Your task to perform on an android device: turn off location history Image 0: 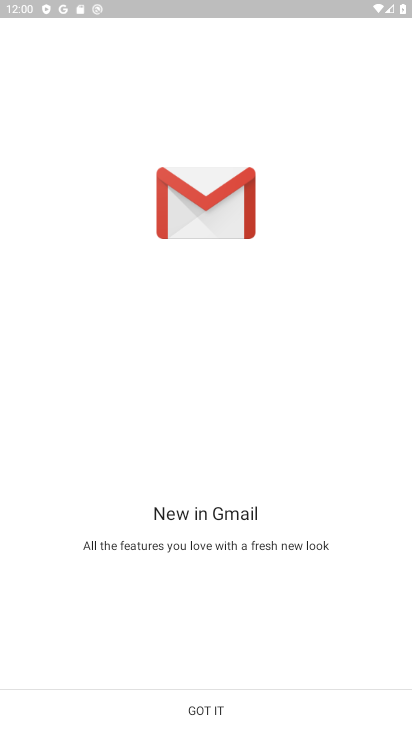
Step 0: press home button
Your task to perform on an android device: turn off location history Image 1: 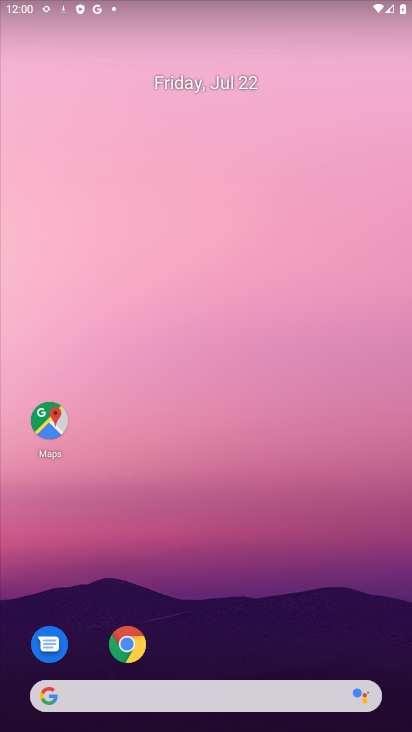
Step 1: drag from (337, 560) to (410, 357)
Your task to perform on an android device: turn off location history Image 2: 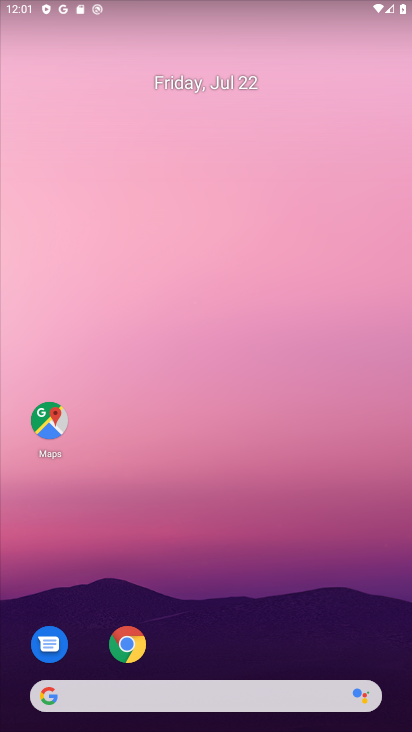
Step 2: drag from (272, 608) to (164, 179)
Your task to perform on an android device: turn off location history Image 3: 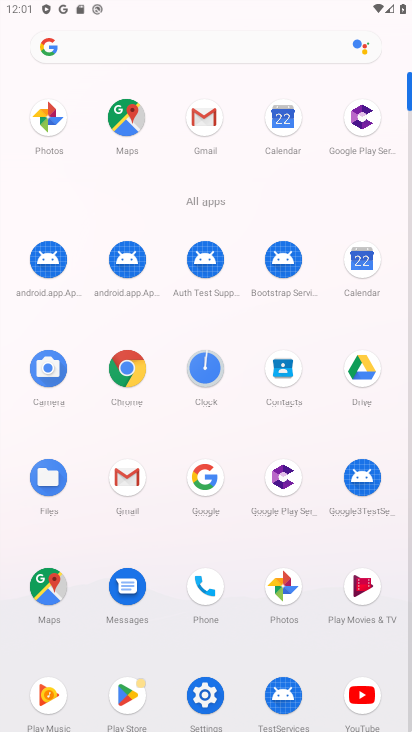
Step 3: click (204, 703)
Your task to perform on an android device: turn off location history Image 4: 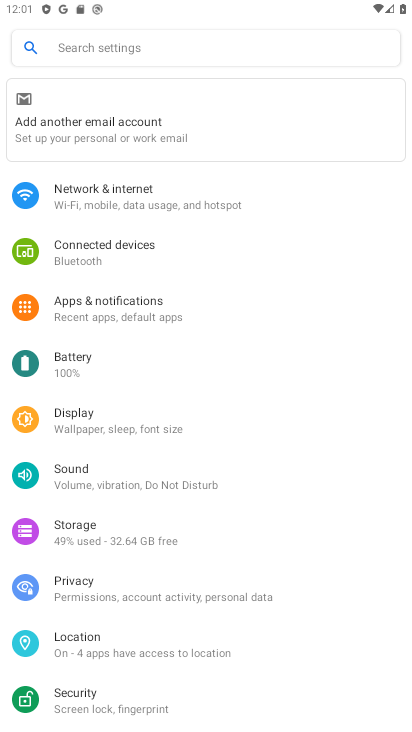
Step 4: press home button
Your task to perform on an android device: turn off location history Image 5: 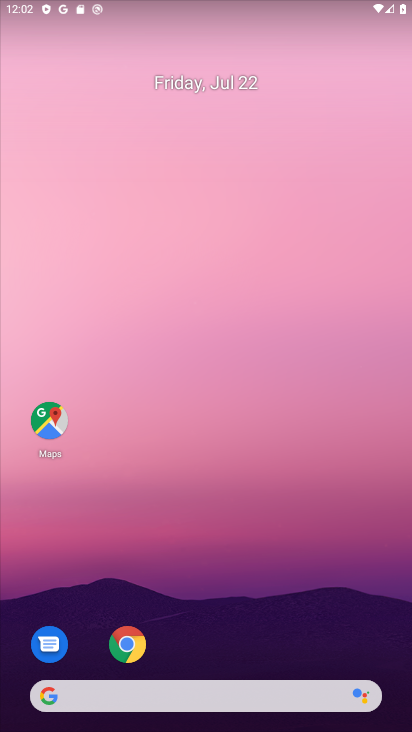
Step 5: drag from (358, 595) to (257, 98)
Your task to perform on an android device: turn off location history Image 6: 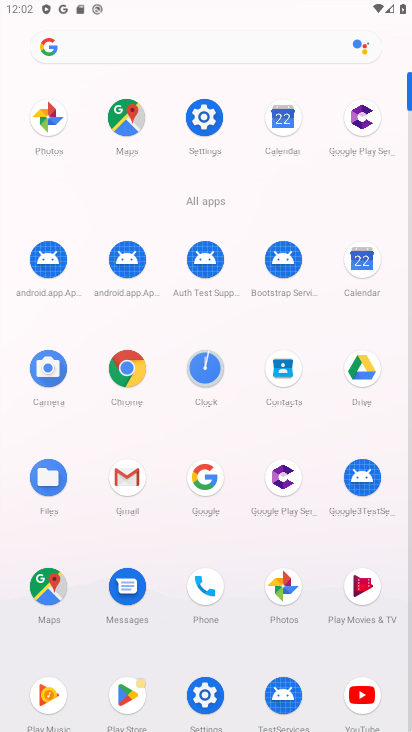
Step 6: click (207, 686)
Your task to perform on an android device: turn off location history Image 7: 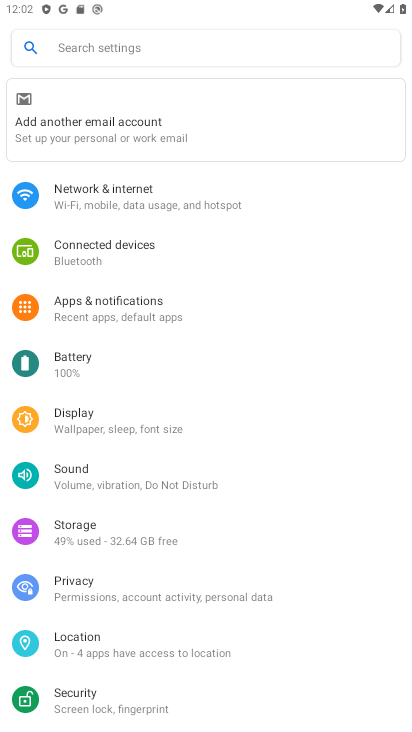
Step 7: click (117, 640)
Your task to perform on an android device: turn off location history Image 8: 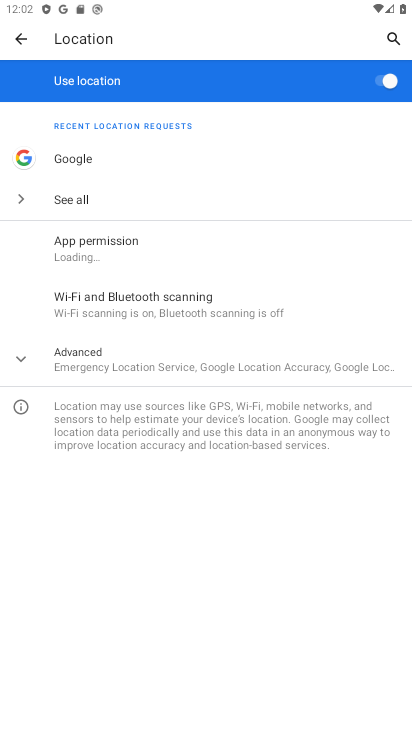
Step 8: click (134, 362)
Your task to perform on an android device: turn off location history Image 9: 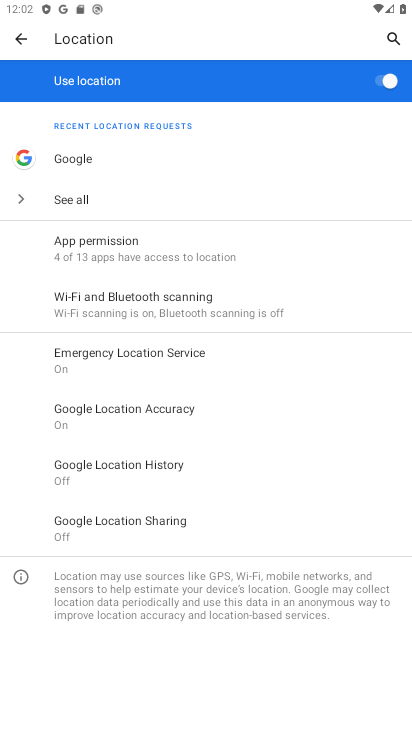
Step 9: click (173, 461)
Your task to perform on an android device: turn off location history Image 10: 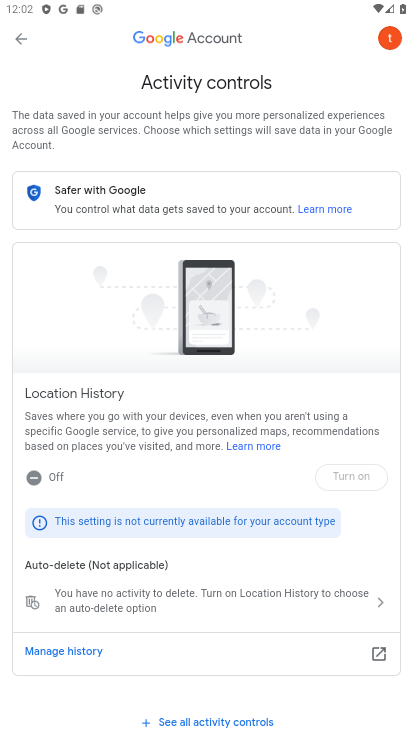
Step 10: task complete